Your task to perform on an android device: Go to privacy settings Image 0: 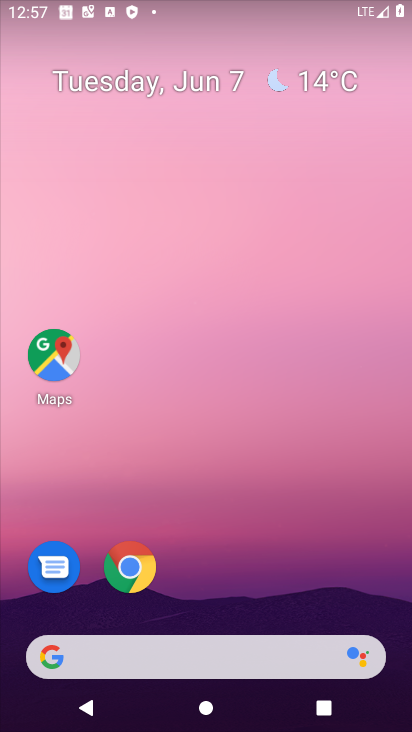
Step 0: drag from (140, 654) to (111, 102)
Your task to perform on an android device: Go to privacy settings Image 1: 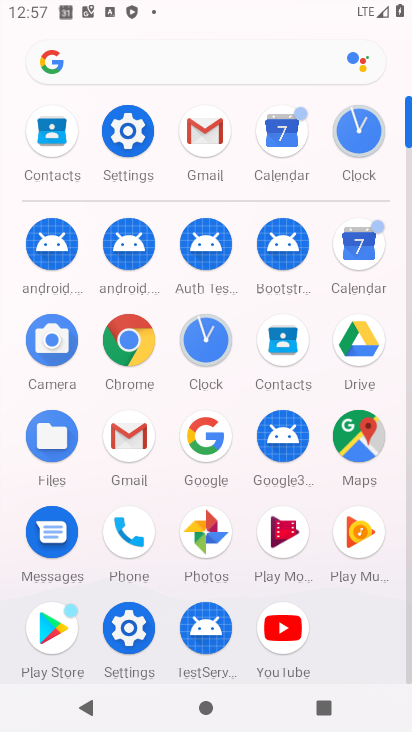
Step 1: click (139, 148)
Your task to perform on an android device: Go to privacy settings Image 2: 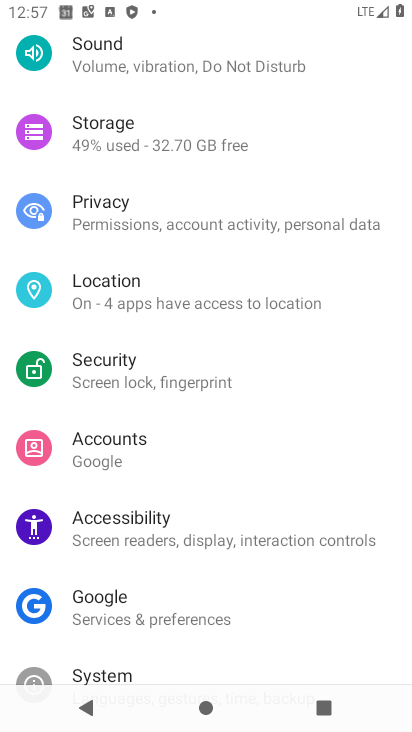
Step 2: click (128, 220)
Your task to perform on an android device: Go to privacy settings Image 3: 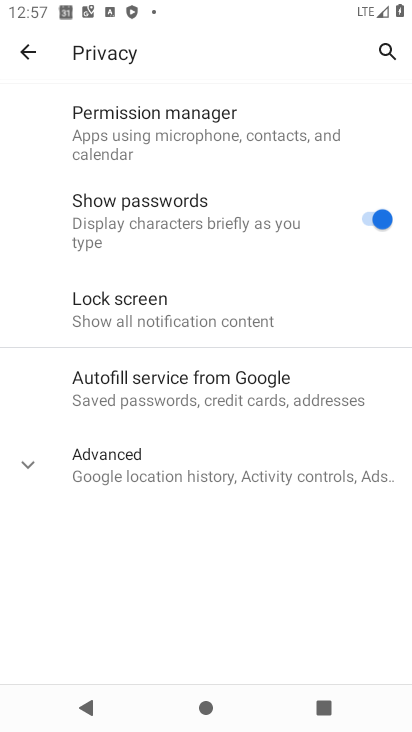
Step 3: task complete